Your task to perform on an android device: all mails in gmail Image 0: 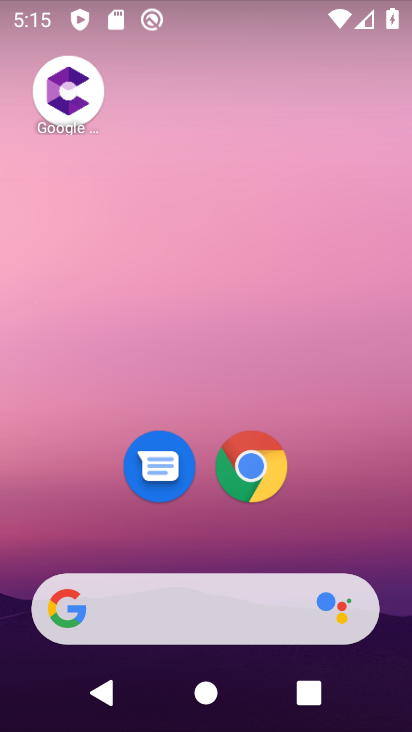
Step 0: drag from (344, 532) to (362, 114)
Your task to perform on an android device: all mails in gmail Image 1: 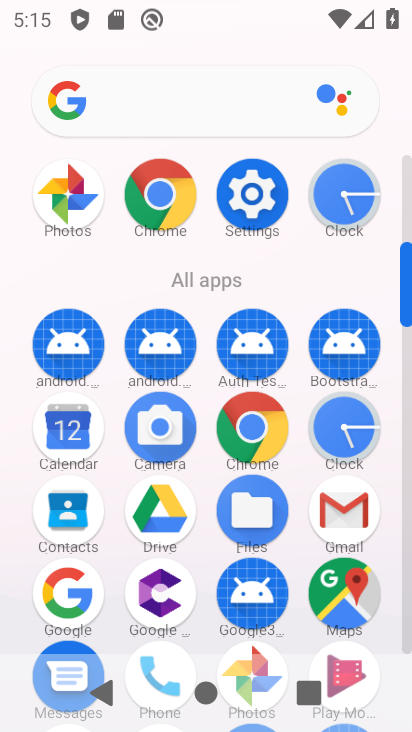
Step 1: click (345, 510)
Your task to perform on an android device: all mails in gmail Image 2: 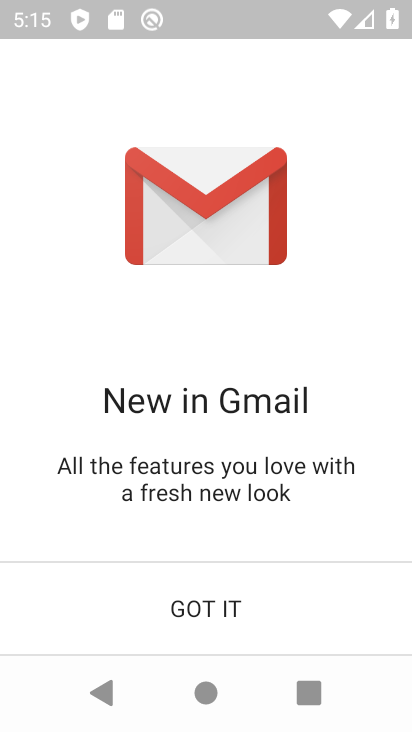
Step 2: click (207, 604)
Your task to perform on an android device: all mails in gmail Image 3: 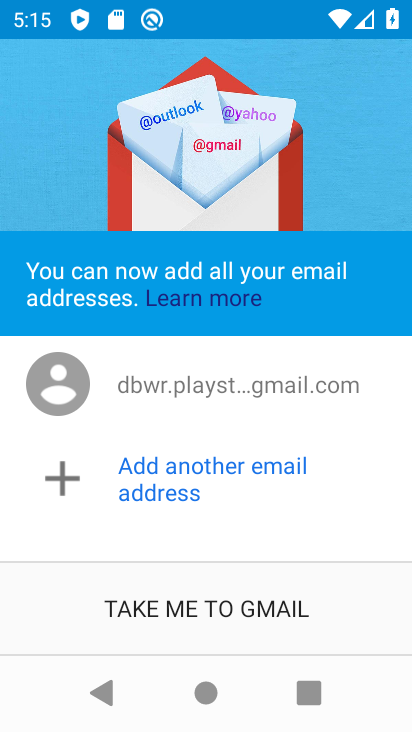
Step 3: click (207, 604)
Your task to perform on an android device: all mails in gmail Image 4: 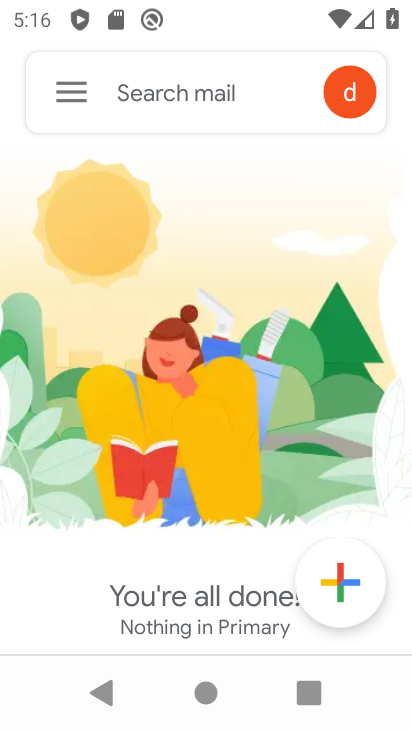
Step 4: click (63, 93)
Your task to perform on an android device: all mails in gmail Image 5: 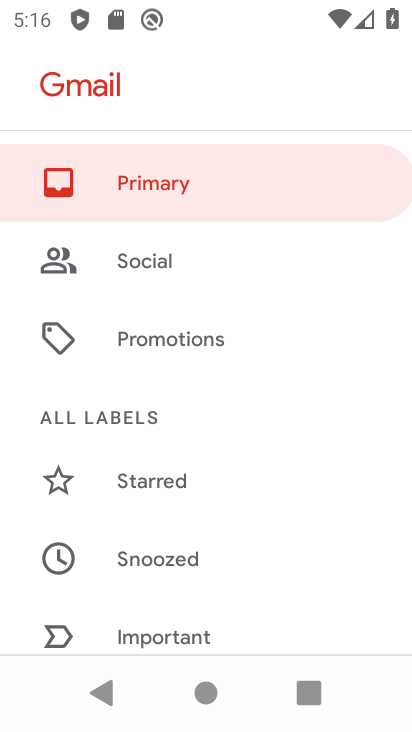
Step 5: drag from (150, 380) to (221, 109)
Your task to perform on an android device: all mails in gmail Image 6: 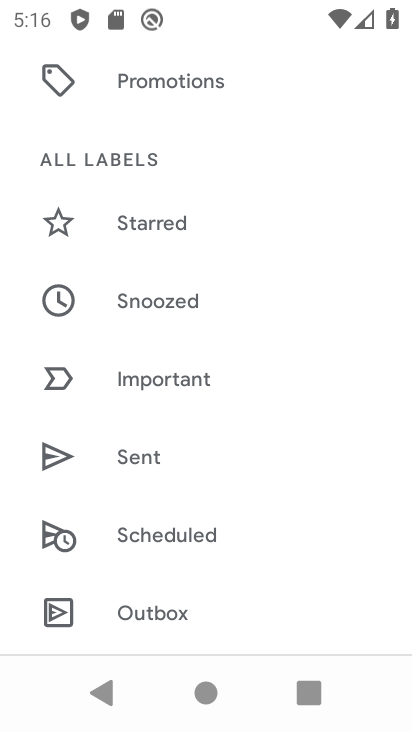
Step 6: drag from (148, 342) to (203, 152)
Your task to perform on an android device: all mails in gmail Image 7: 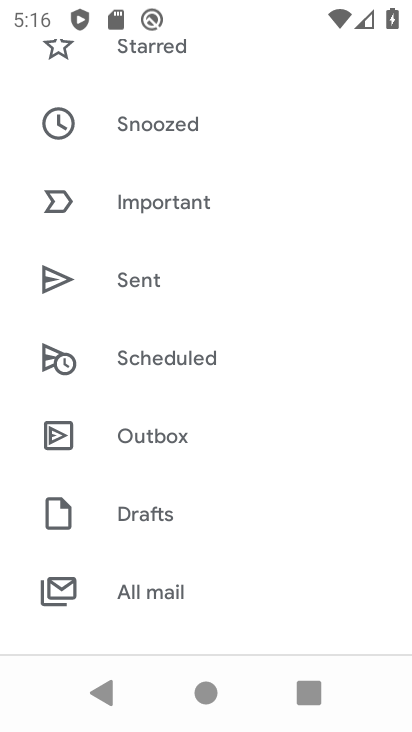
Step 7: click (125, 585)
Your task to perform on an android device: all mails in gmail Image 8: 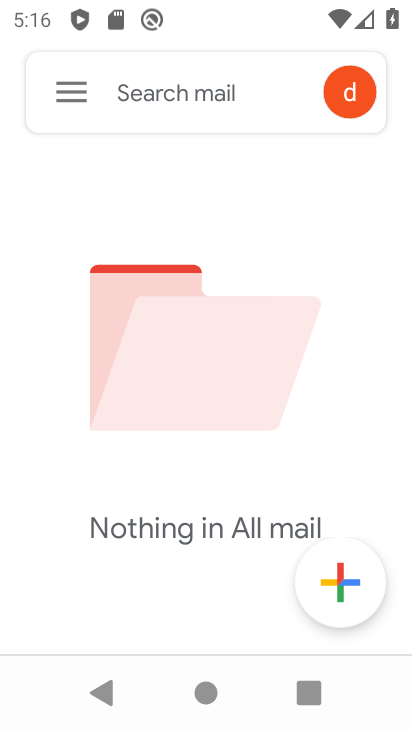
Step 8: task complete